Your task to perform on an android device: When is my next meeting? Image 0: 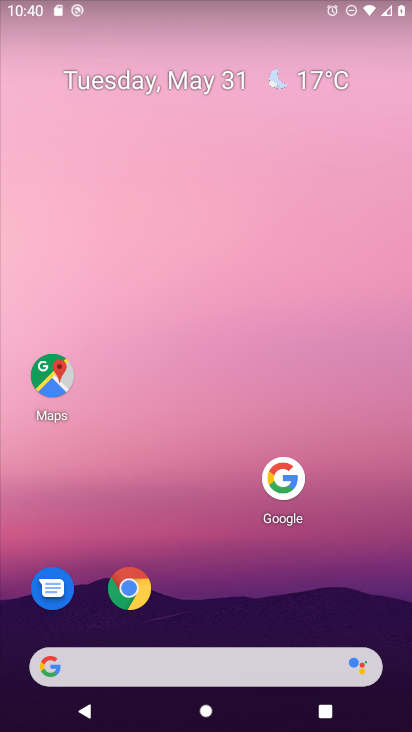
Step 0: drag from (177, 657) to (309, 132)
Your task to perform on an android device: When is my next meeting? Image 1: 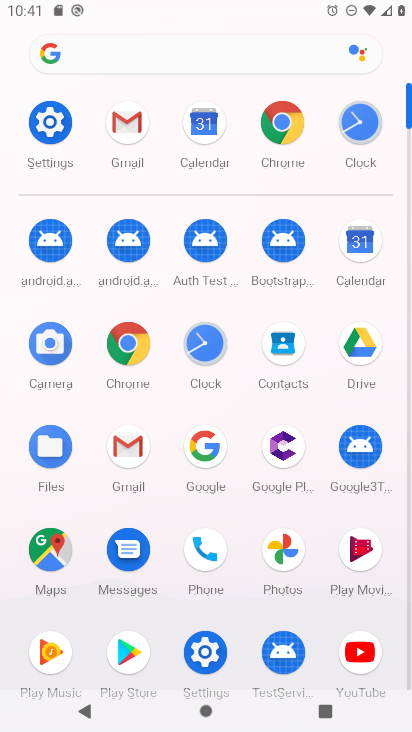
Step 1: click (351, 247)
Your task to perform on an android device: When is my next meeting? Image 2: 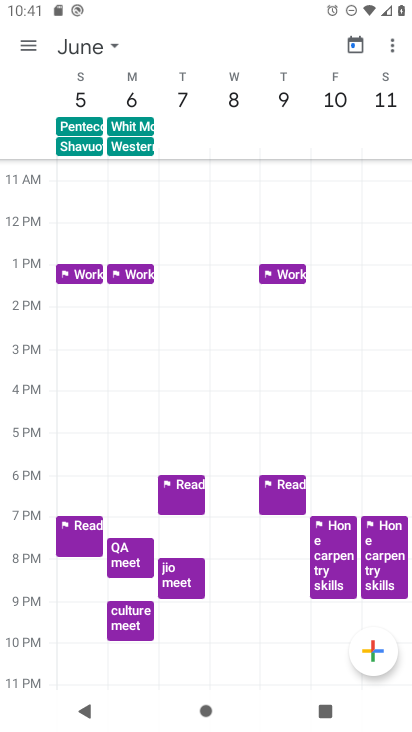
Step 2: click (27, 40)
Your task to perform on an android device: When is my next meeting? Image 3: 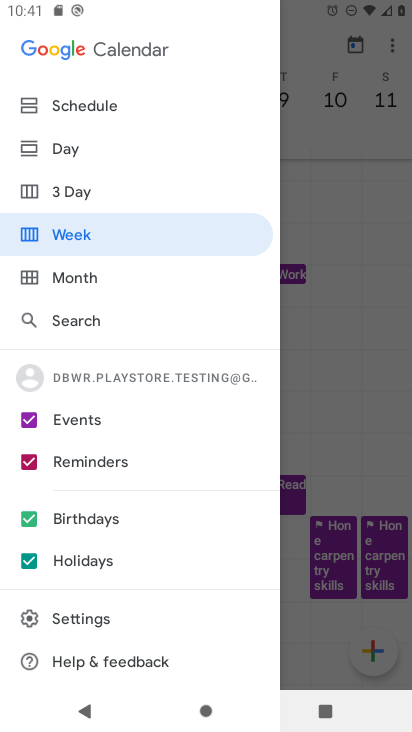
Step 3: click (77, 113)
Your task to perform on an android device: When is my next meeting? Image 4: 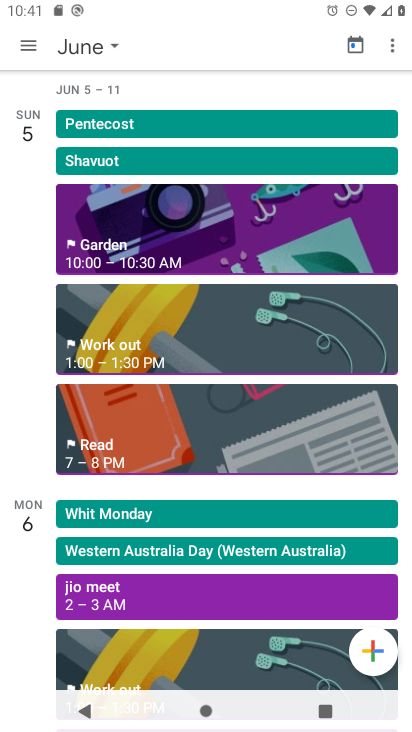
Step 4: task complete